Your task to perform on an android device: change the upload size in google photos Image 0: 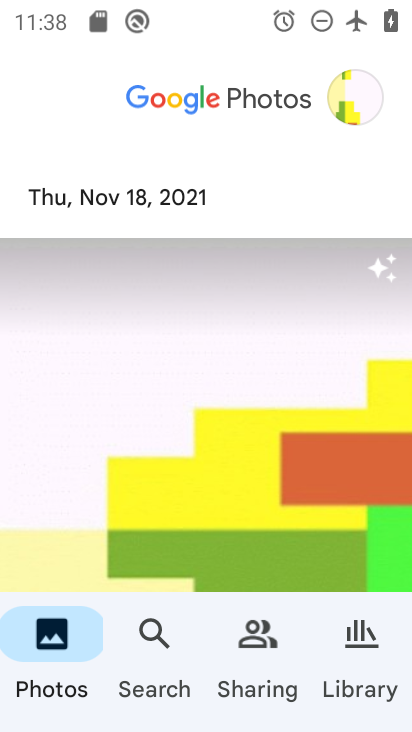
Step 0: press home button
Your task to perform on an android device: change the upload size in google photos Image 1: 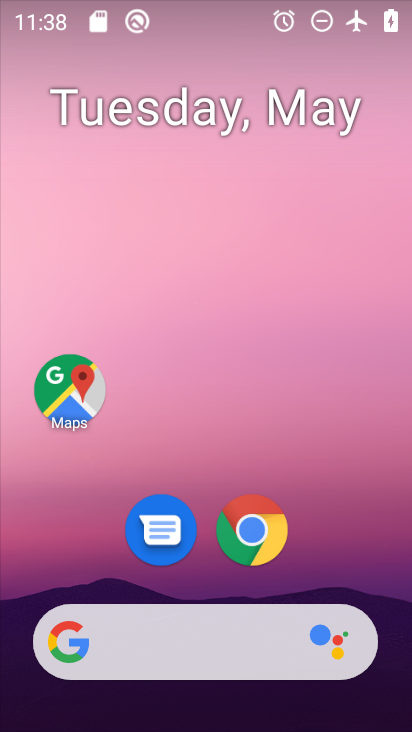
Step 1: drag from (311, 540) to (268, 7)
Your task to perform on an android device: change the upload size in google photos Image 2: 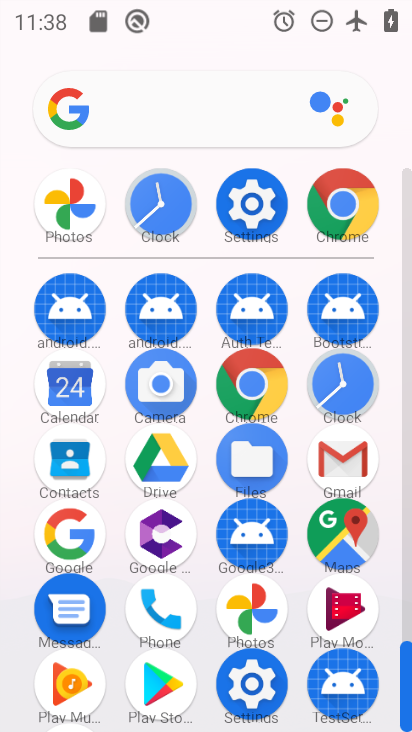
Step 2: click (69, 213)
Your task to perform on an android device: change the upload size in google photos Image 3: 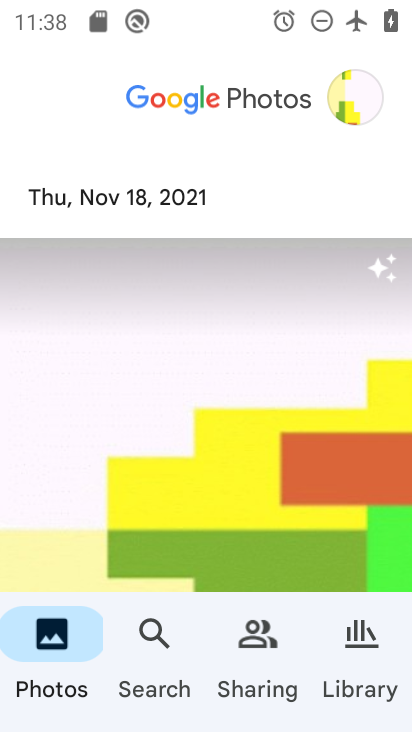
Step 3: click (364, 85)
Your task to perform on an android device: change the upload size in google photos Image 4: 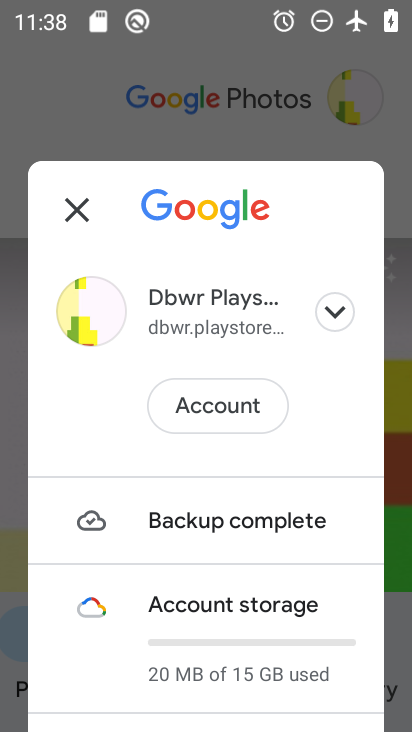
Step 4: drag from (204, 584) to (280, 102)
Your task to perform on an android device: change the upload size in google photos Image 5: 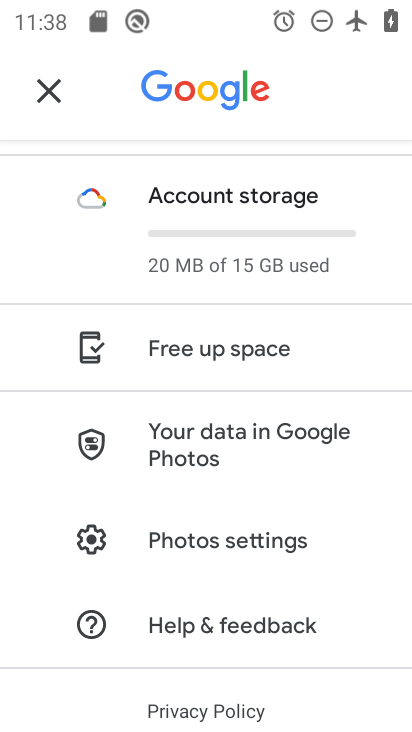
Step 5: click (235, 527)
Your task to perform on an android device: change the upload size in google photos Image 6: 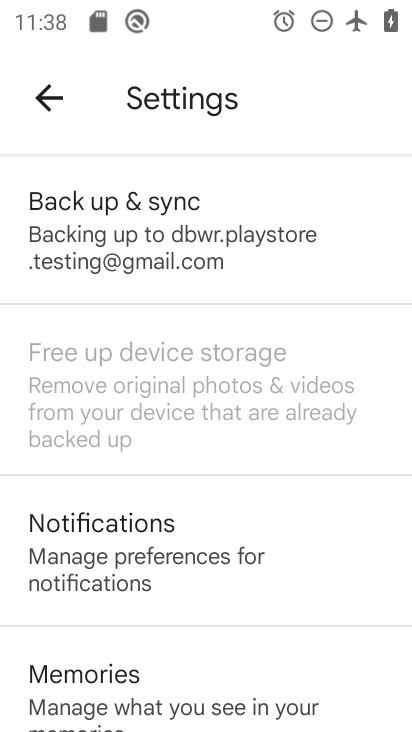
Step 6: click (191, 188)
Your task to perform on an android device: change the upload size in google photos Image 7: 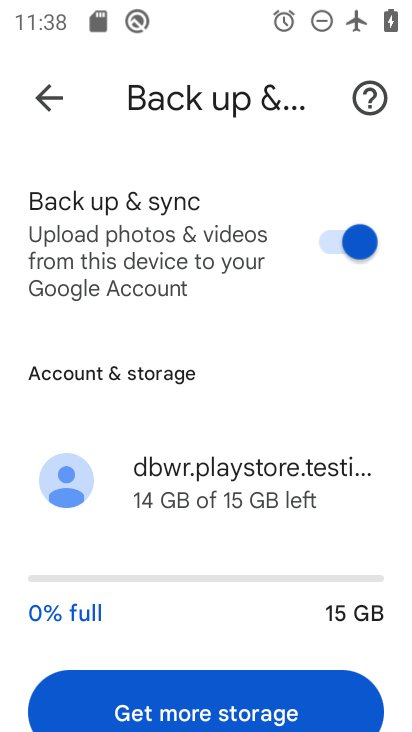
Step 7: drag from (154, 479) to (245, 28)
Your task to perform on an android device: change the upload size in google photos Image 8: 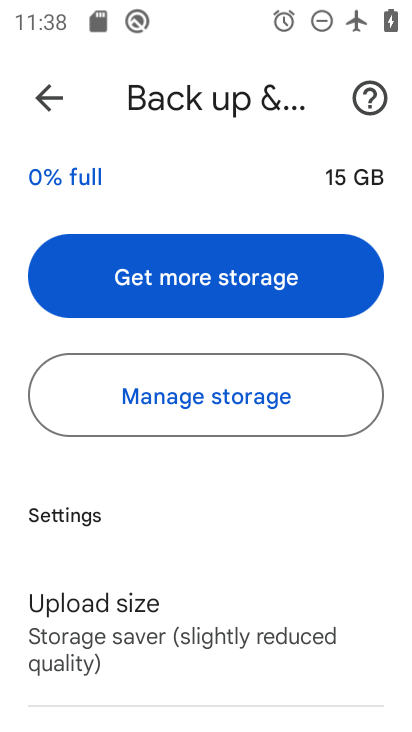
Step 8: drag from (174, 570) to (218, 278)
Your task to perform on an android device: change the upload size in google photos Image 9: 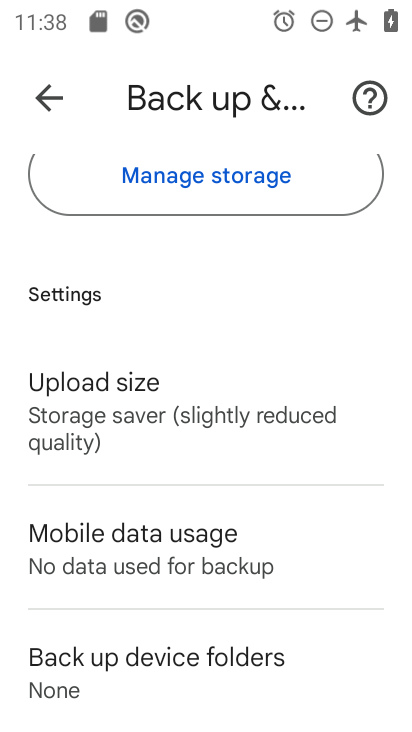
Step 9: click (152, 420)
Your task to perform on an android device: change the upload size in google photos Image 10: 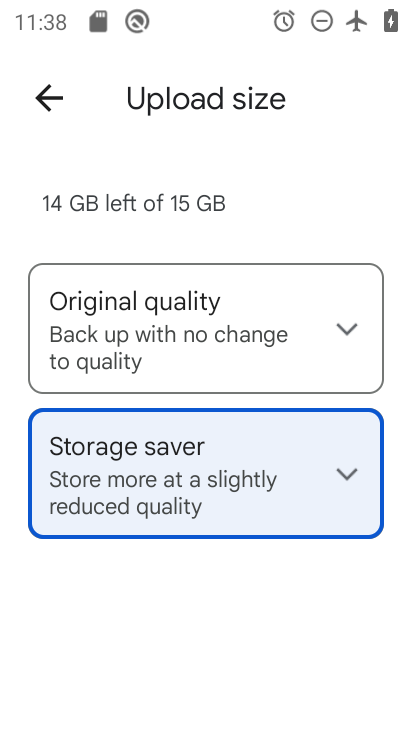
Step 10: click (175, 311)
Your task to perform on an android device: change the upload size in google photos Image 11: 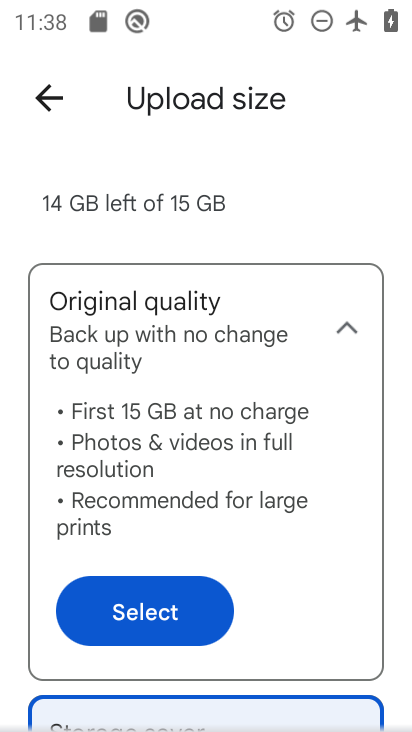
Step 11: click (129, 607)
Your task to perform on an android device: change the upload size in google photos Image 12: 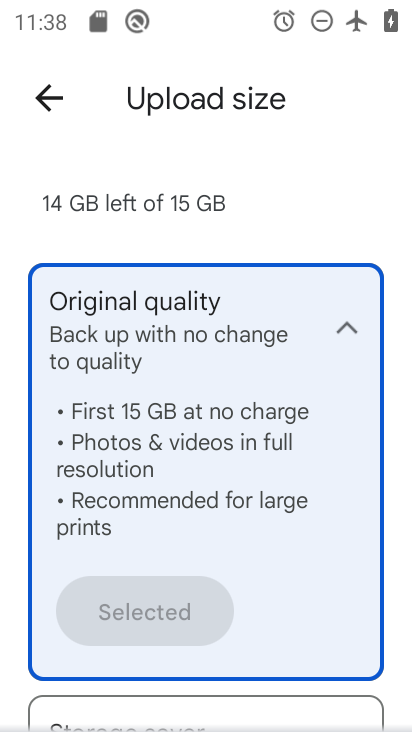
Step 12: task complete